Your task to perform on an android device: turn off notifications in google photos Image 0: 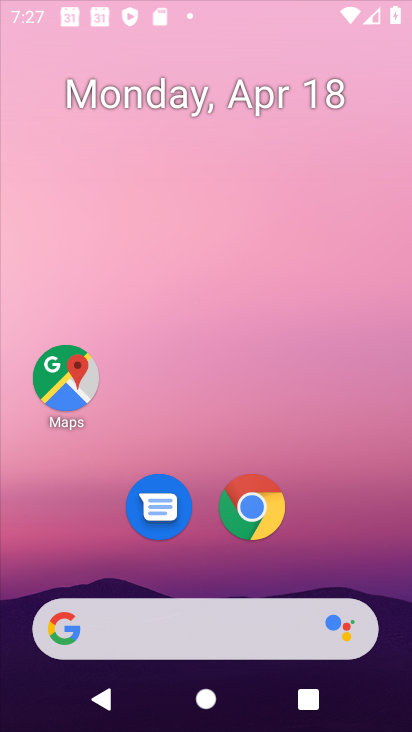
Step 0: drag from (99, 433) to (174, 59)
Your task to perform on an android device: turn off notifications in google photos Image 1: 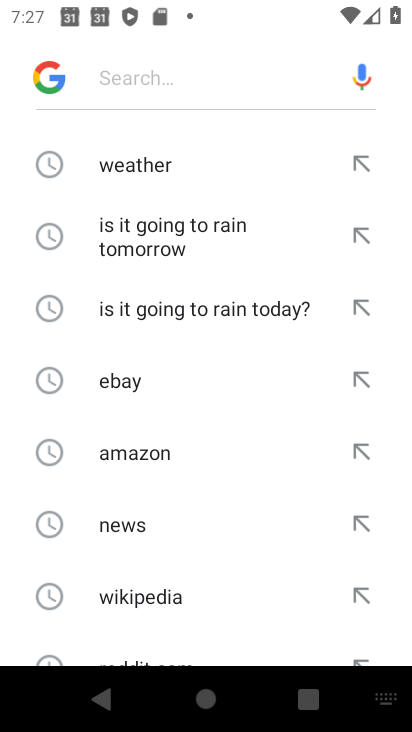
Step 1: press home button
Your task to perform on an android device: turn off notifications in google photos Image 2: 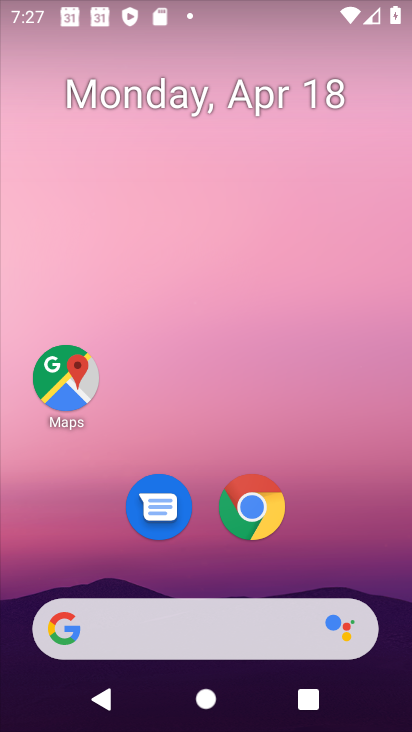
Step 2: drag from (2, 561) to (189, 31)
Your task to perform on an android device: turn off notifications in google photos Image 3: 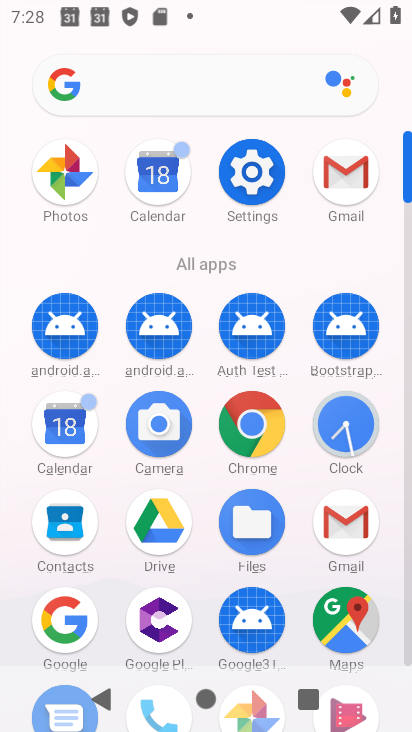
Step 3: click (407, 655)
Your task to perform on an android device: turn off notifications in google photos Image 4: 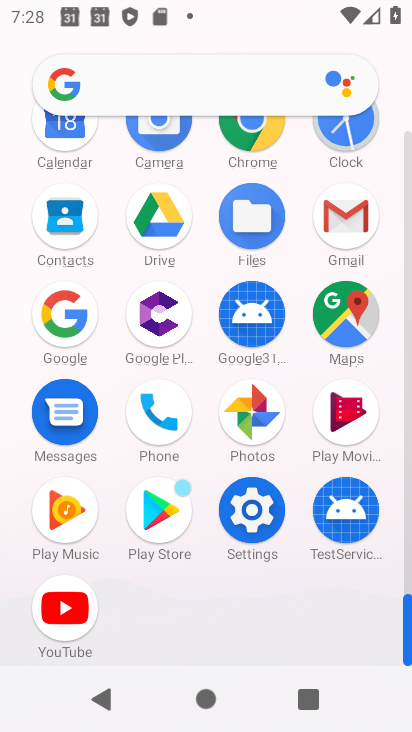
Step 4: click (252, 419)
Your task to perform on an android device: turn off notifications in google photos Image 5: 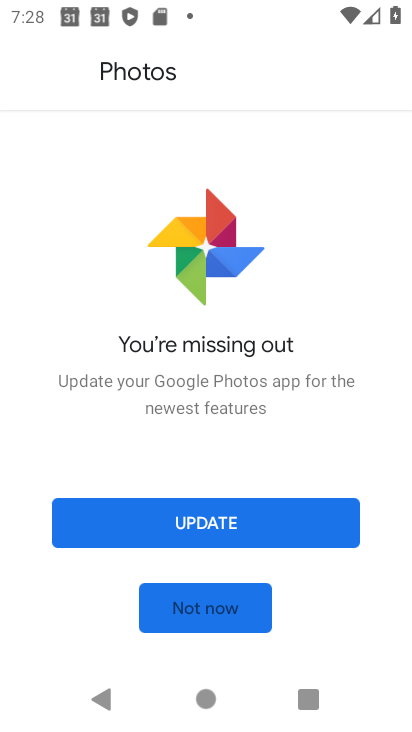
Step 5: click (250, 515)
Your task to perform on an android device: turn off notifications in google photos Image 6: 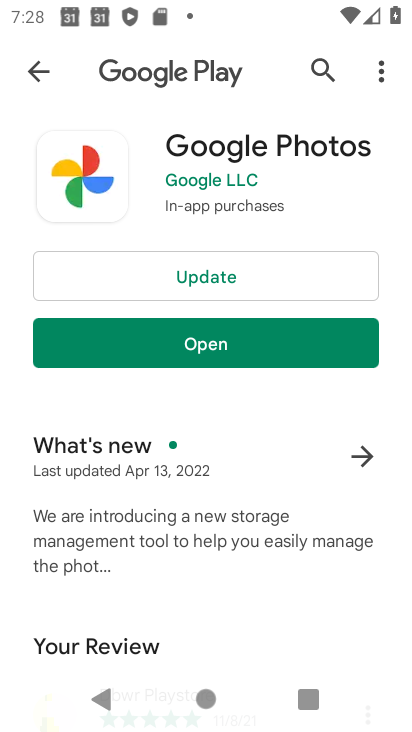
Step 6: click (204, 268)
Your task to perform on an android device: turn off notifications in google photos Image 7: 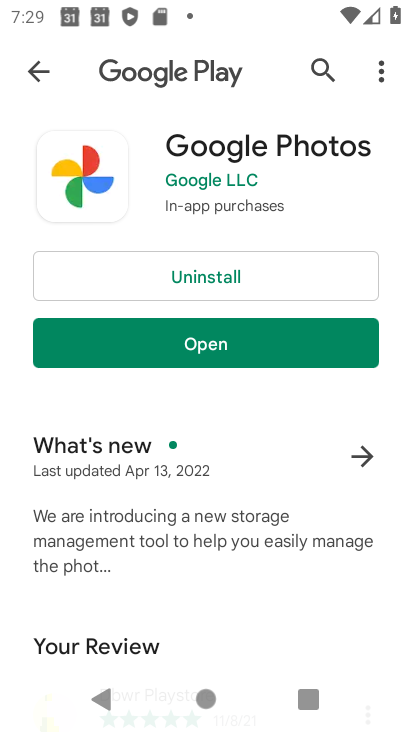
Step 7: click (206, 346)
Your task to perform on an android device: turn off notifications in google photos Image 8: 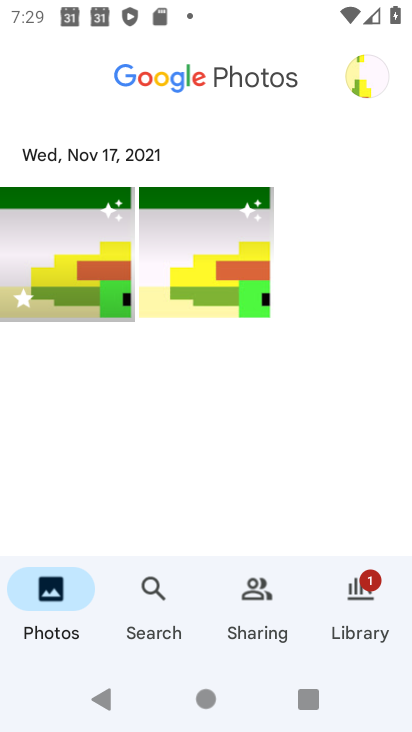
Step 8: click (355, 78)
Your task to perform on an android device: turn off notifications in google photos Image 9: 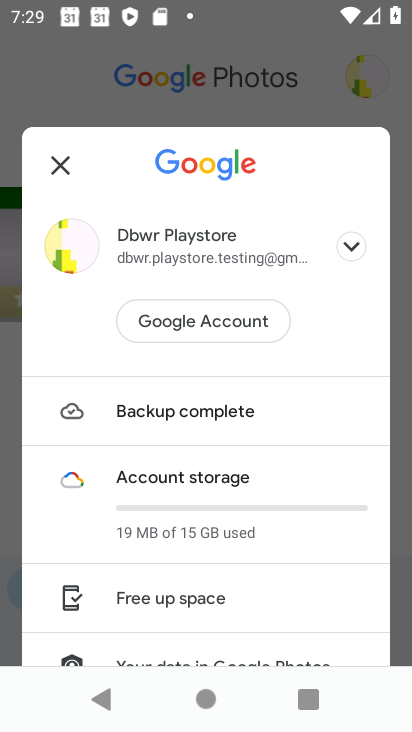
Step 9: drag from (196, 574) to (255, 282)
Your task to perform on an android device: turn off notifications in google photos Image 10: 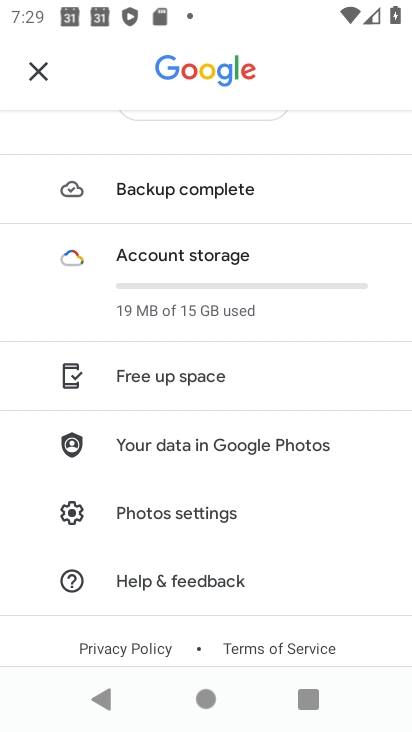
Step 10: click (189, 525)
Your task to perform on an android device: turn off notifications in google photos Image 11: 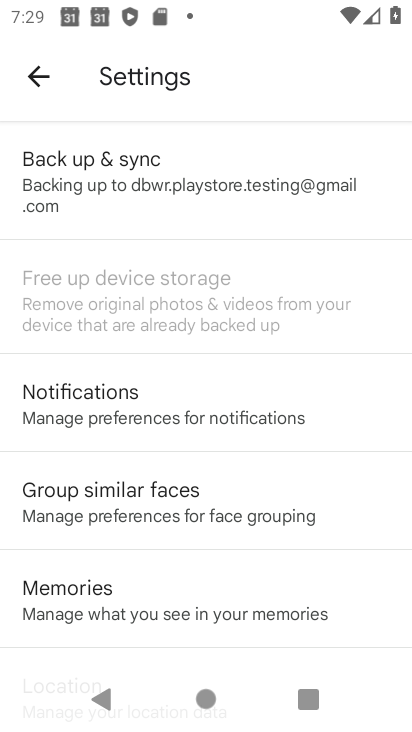
Step 11: click (233, 409)
Your task to perform on an android device: turn off notifications in google photos Image 12: 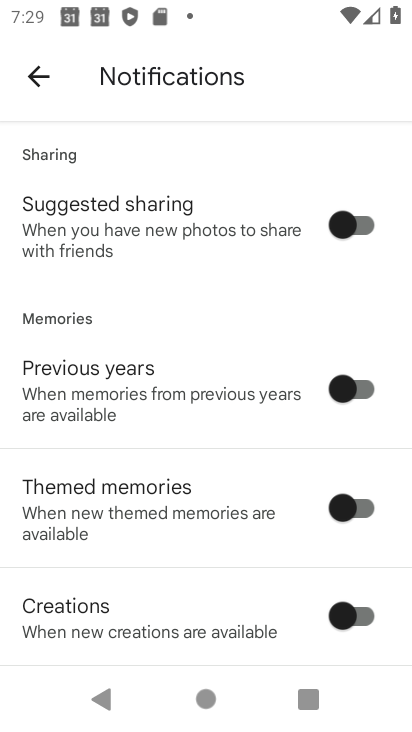
Step 12: task complete